Your task to perform on an android device: set an alarm Image 0: 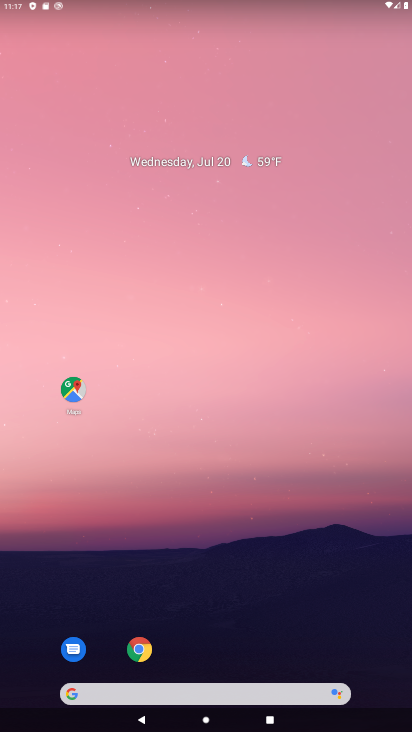
Step 0: drag from (214, 659) to (218, 105)
Your task to perform on an android device: set an alarm Image 1: 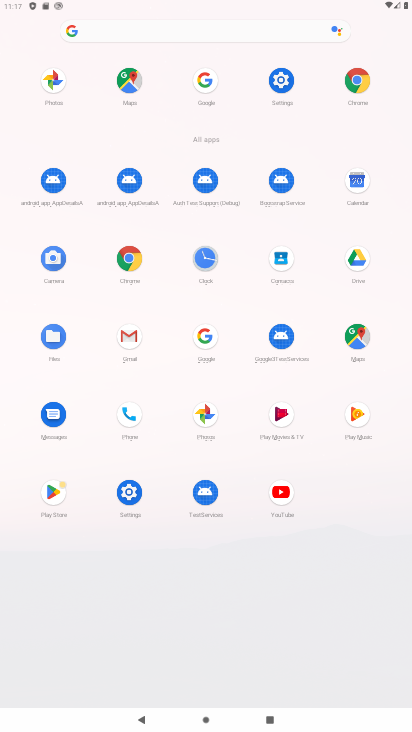
Step 1: click (204, 265)
Your task to perform on an android device: set an alarm Image 2: 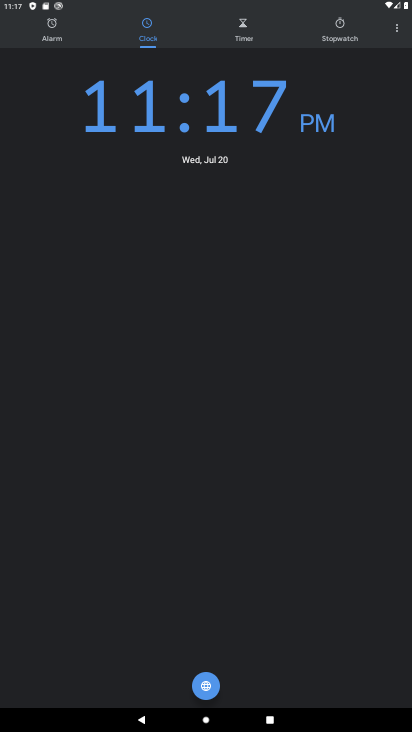
Step 2: click (63, 34)
Your task to perform on an android device: set an alarm Image 3: 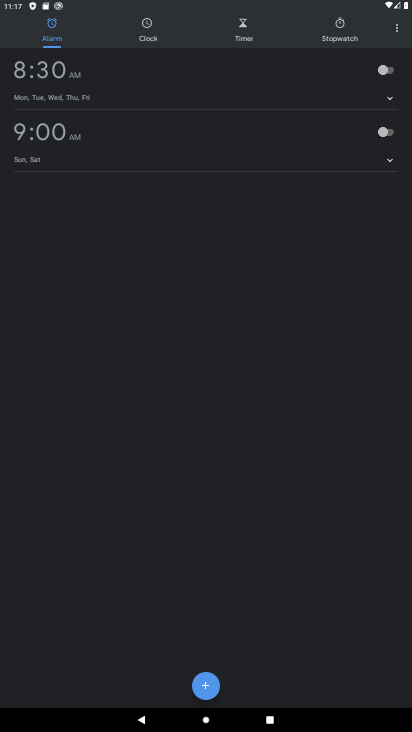
Step 3: click (386, 70)
Your task to perform on an android device: set an alarm Image 4: 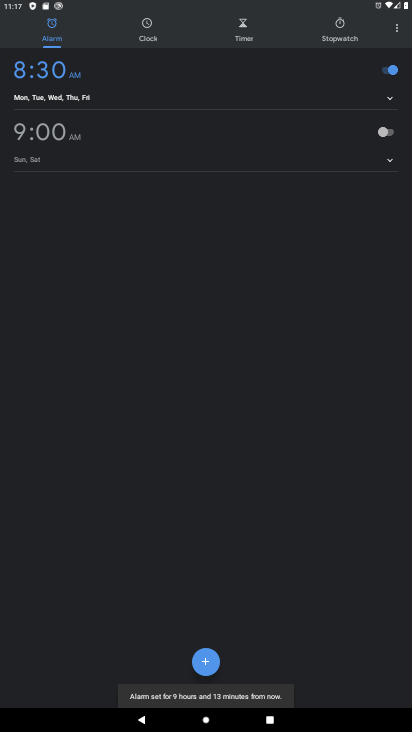
Step 4: task complete